Your task to perform on an android device: change notifications settings Image 0: 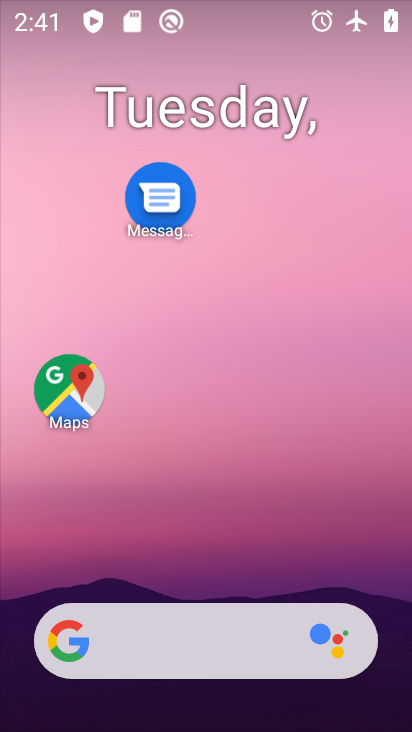
Step 0: drag from (216, 552) to (195, 145)
Your task to perform on an android device: change notifications settings Image 1: 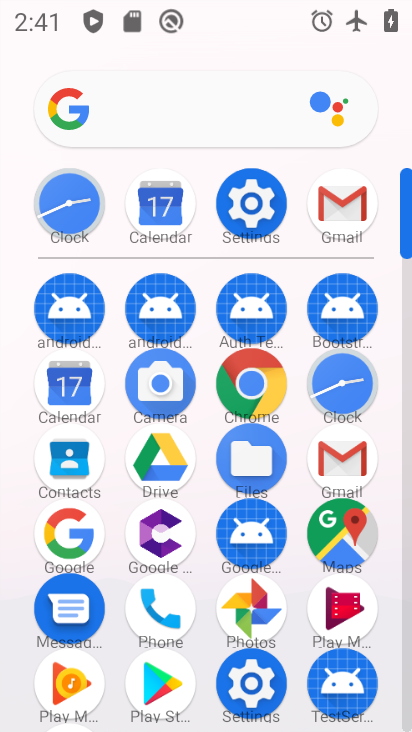
Step 1: click (245, 191)
Your task to perform on an android device: change notifications settings Image 2: 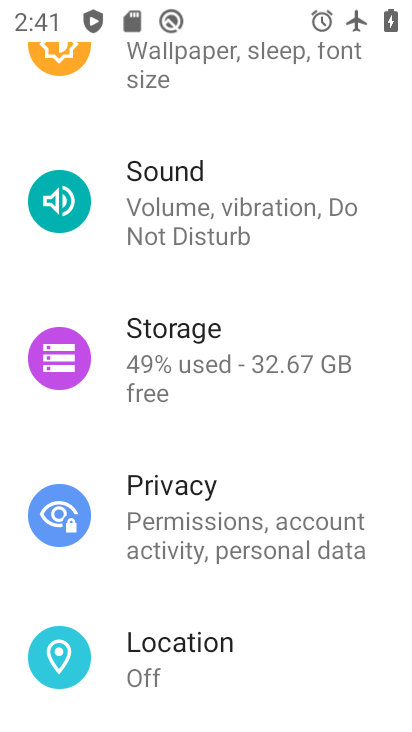
Step 2: drag from (245, 191) to (210, 556)
Your task to perform on an android device: change notifications settings Image 3: 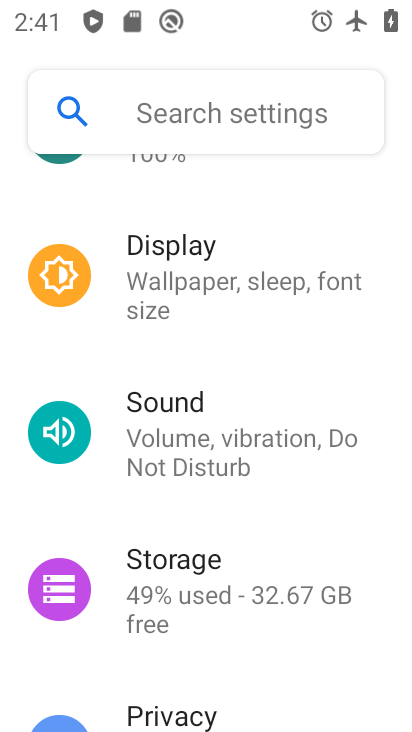
Step 3: drag from (236, 231) to (236, 544)
Your task to perform on an android device: change notifications settings Image 4: 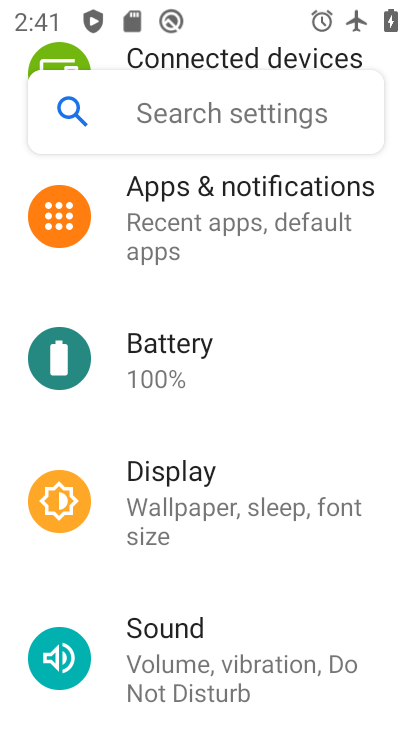
Step 4: click (238, 247)
Your task to perform on an android device: change notifications settings Image 5: 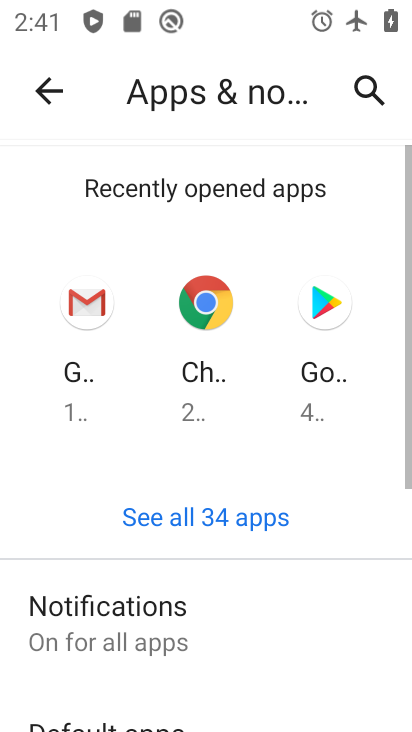
Step 5: click (214, 599)
Your task to perform on an android device: change notifications settings Image 6: 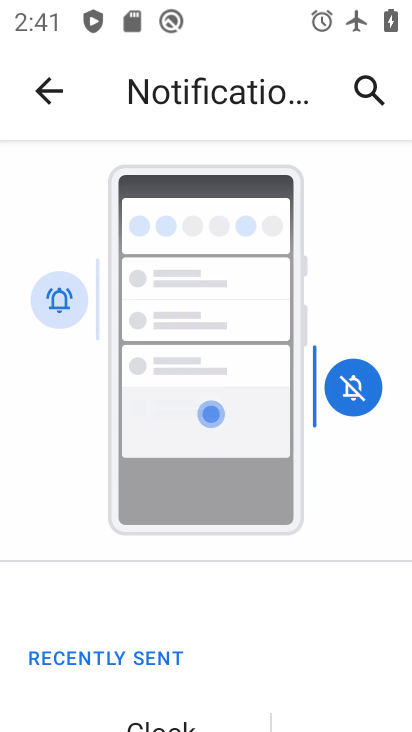
Step 6: drag from (254, 562) to (262, 207)
Your task to perform on an android device: change notifications settings Image 7: 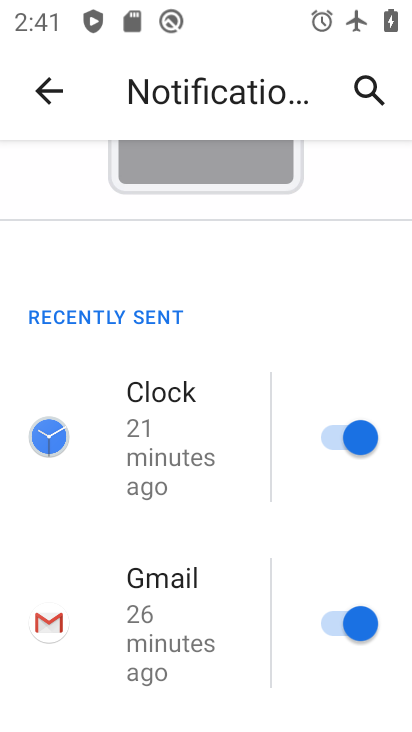
Step 7: drag from (250, 611) to (292, 308)
Your task to perform on an android device: change notifications settings Image 8: 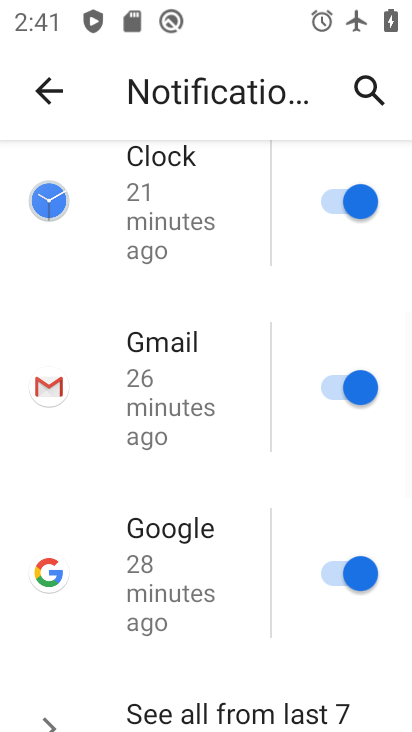
Step 8: drag from (250, 549) to (303, 224)
Your task to perform on an android device: change notifications settings Image 9: 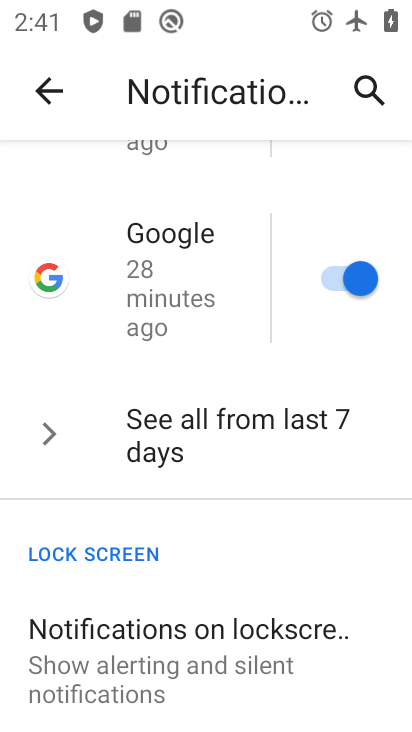
Step 9: click (269, 611)
Your task to perform on an android device: change notifications settings Image 10: 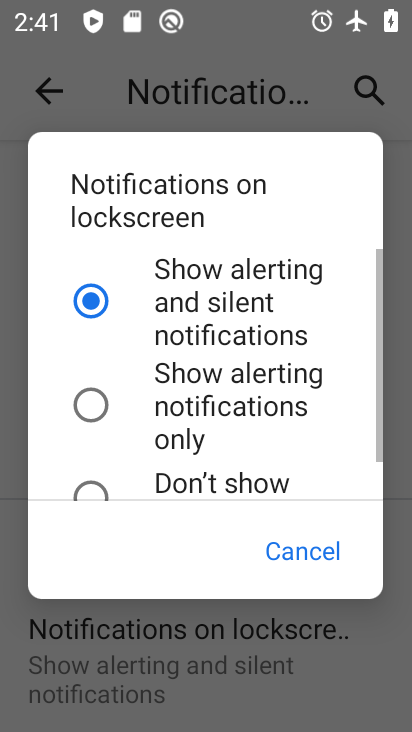
Step 10: click (156, 481)
Your task to perform on an android device: change notifications settings Image 11: 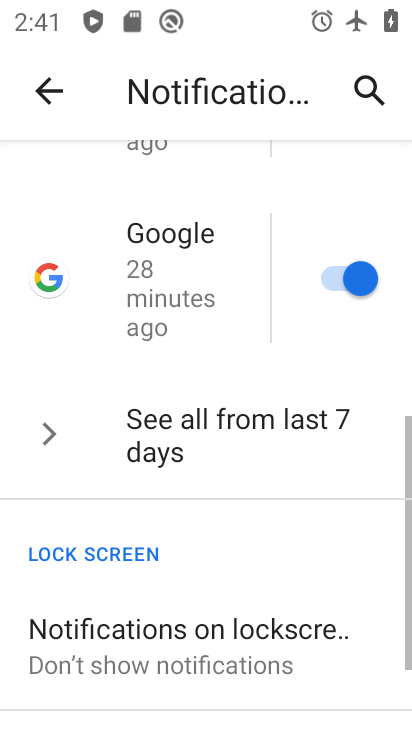
Step 11: task complete